Your task to perform on an android device: add a contact in the contacts app Image 0: 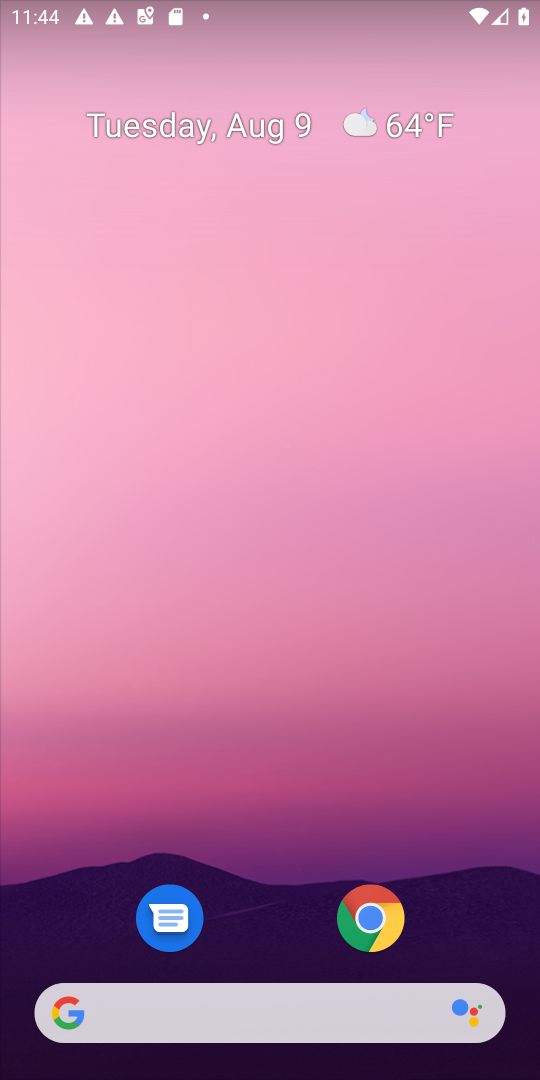
Step 0: drag from (269, 695) to (380, 229)
Your task to perform on an android device: add a contact in the contacts app Image 1: 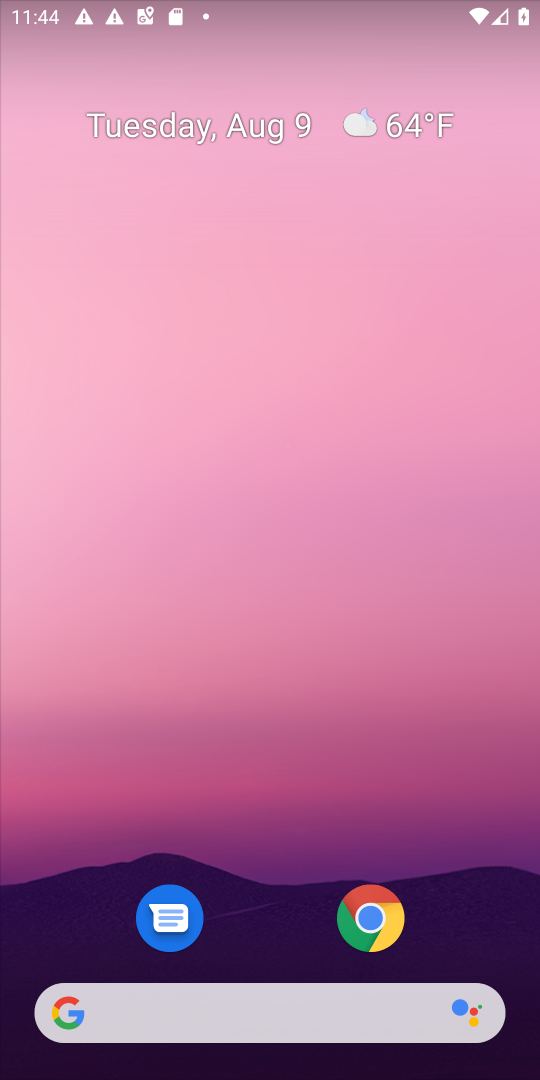
Step 1: drag from (260, 966) to (434, 186)
Your task to perform on an android device: add a contact in the contacts app Image 2: 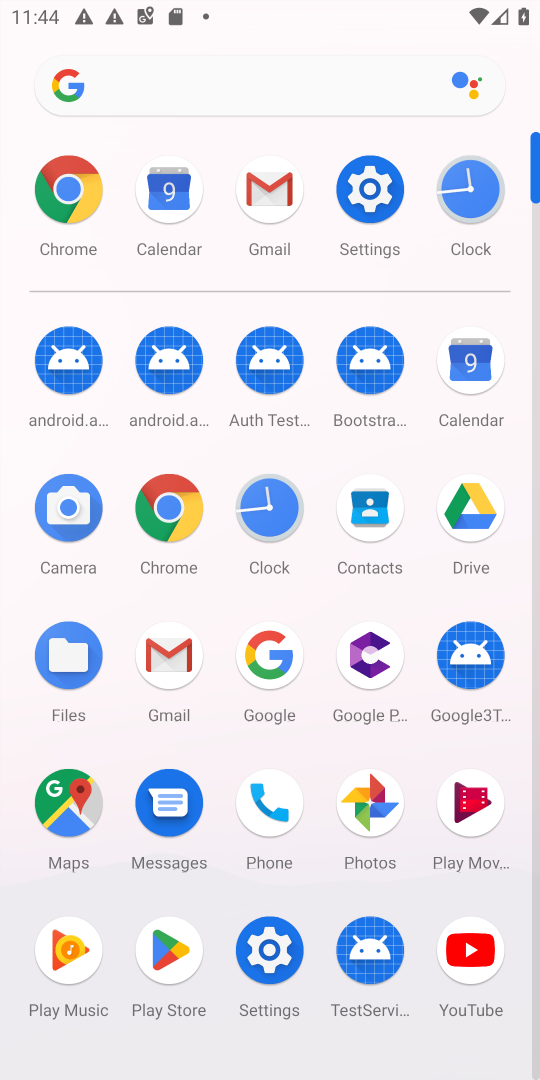
Step 2: click (361, 518)
Your task to perform on an android device: add a contact in the contacts app Image 3: 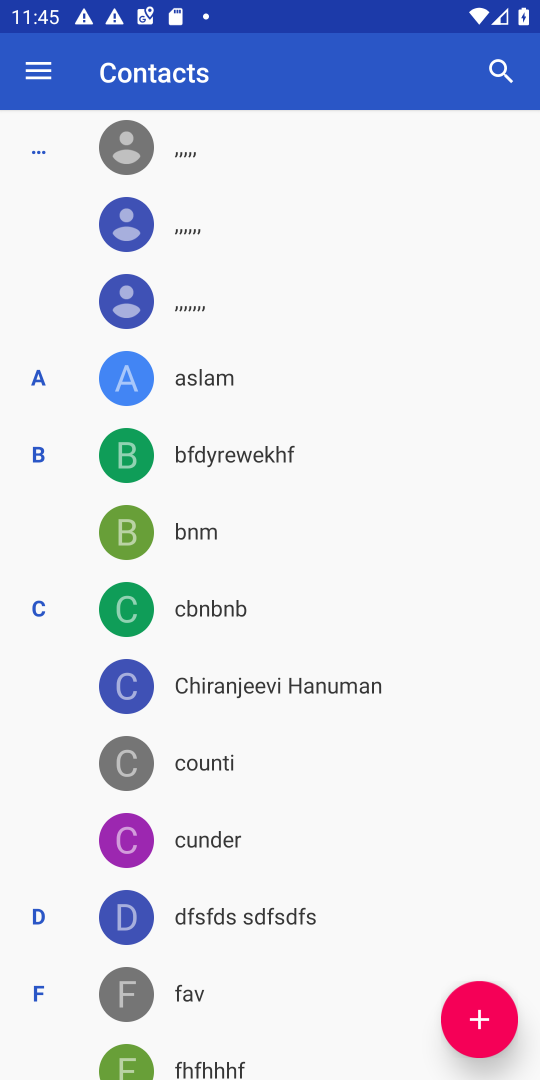
Step 3: click (475, 1027)
Your task to perform on an android device: add a contact in the contacts app Image 4: 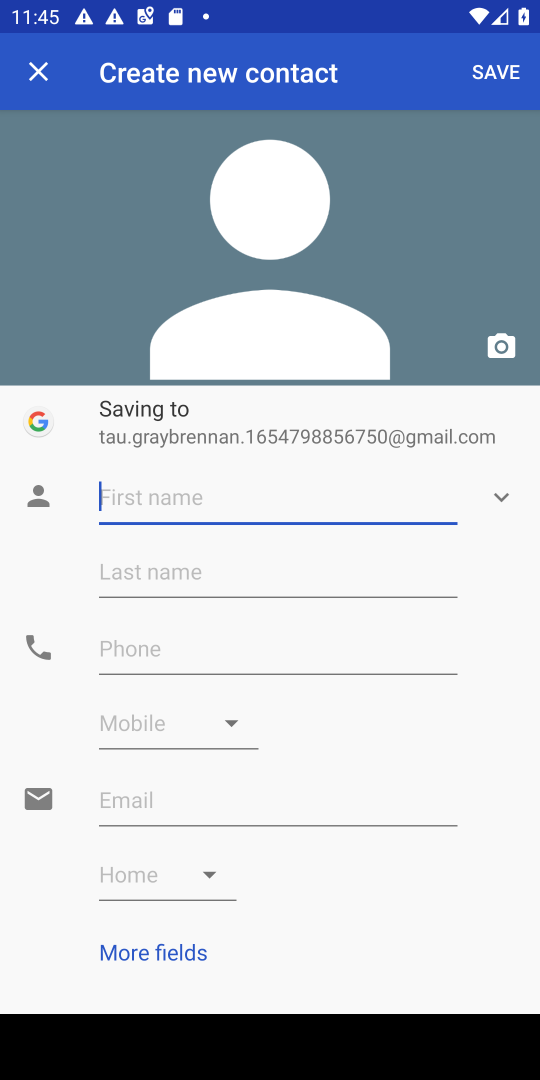
Step 4: type "htrf"
Your task to perform on an android device: add a contact in the contacts app Image 5: 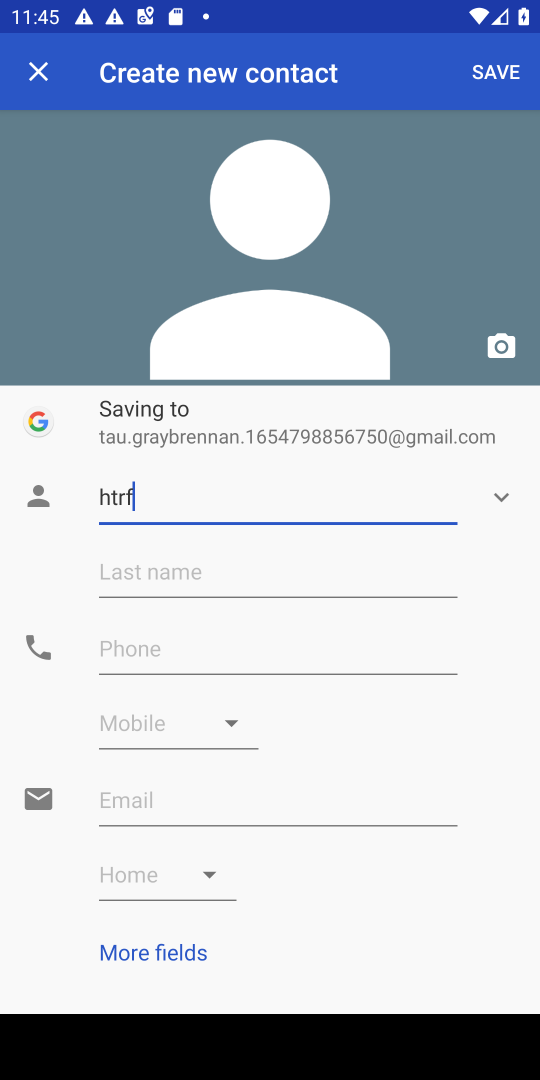
Step 5: click (502, 70)
Your task to perform on an android device: add a contact in the contacts app Image 6: 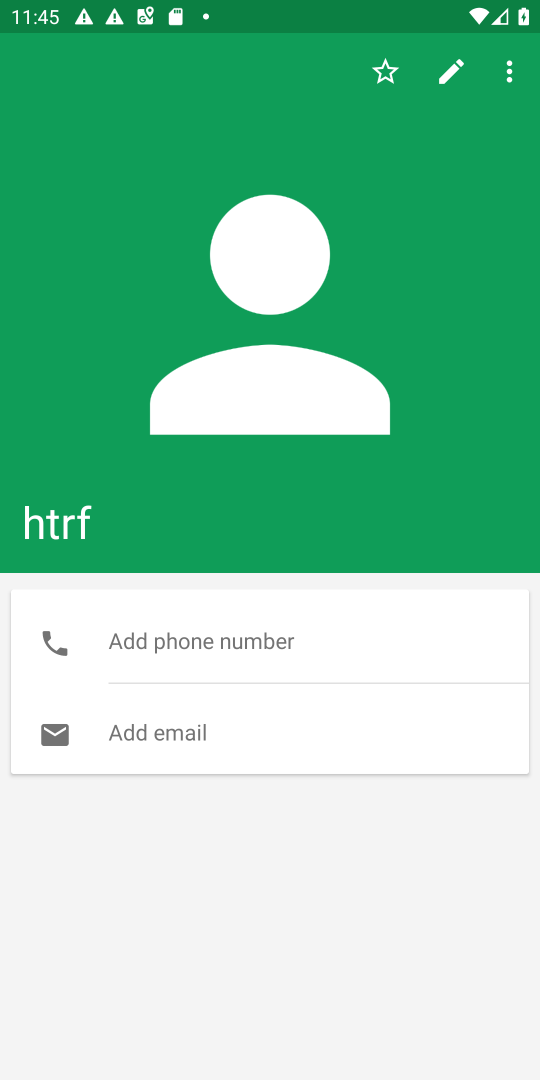
Step 6: task complete